Your task to perform on an android device: Open ESPN.com Image 0: 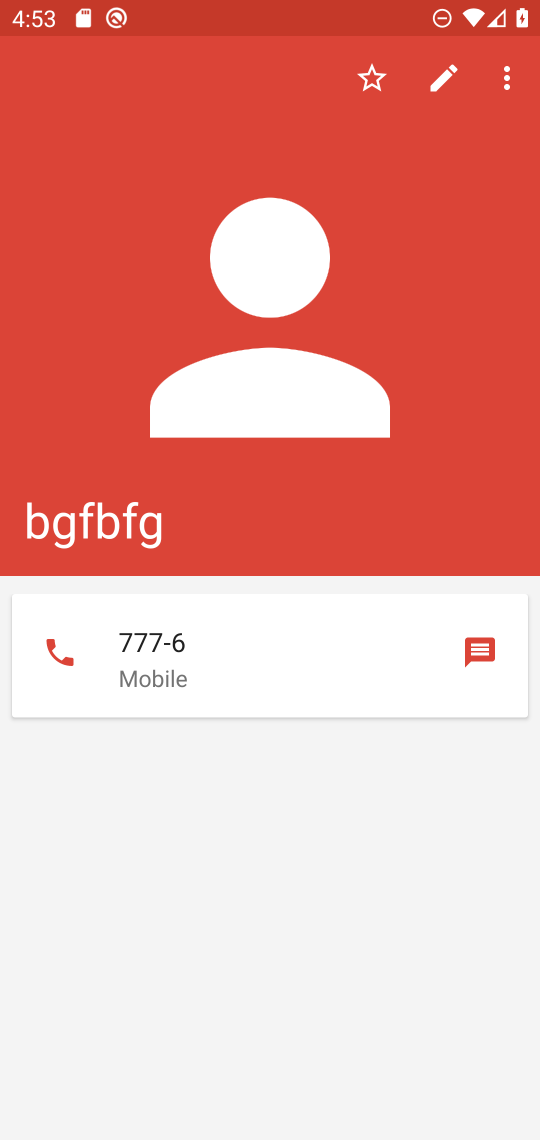
Step 0: press home button
Your task to perform on an android device: Open ESPN.com Image 1: 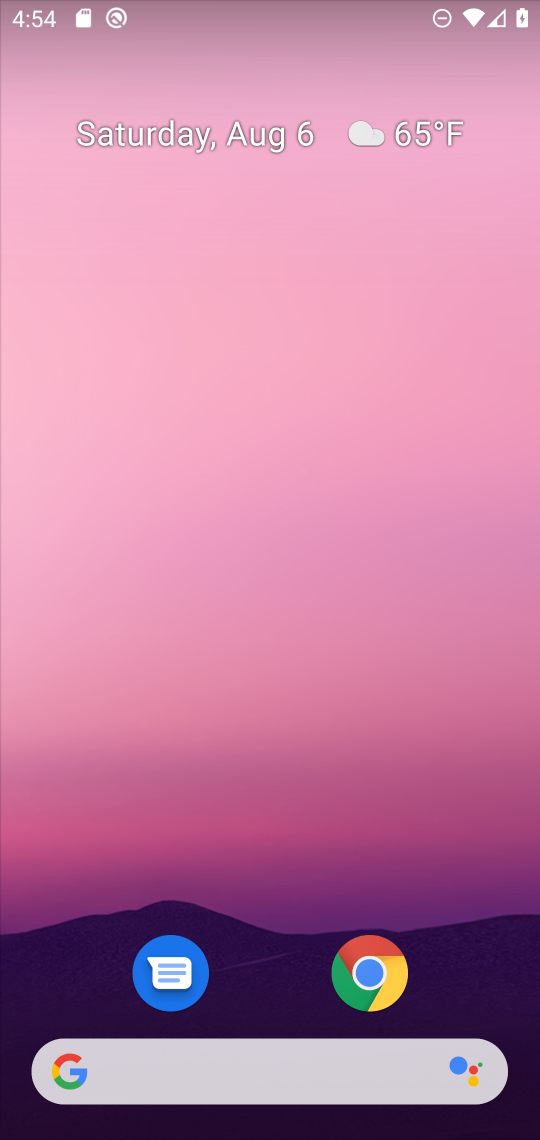
Step 1: drag from (237, 754) to (178, 17)
Your task to perform on an android device: Open ESPN.com Image 2: 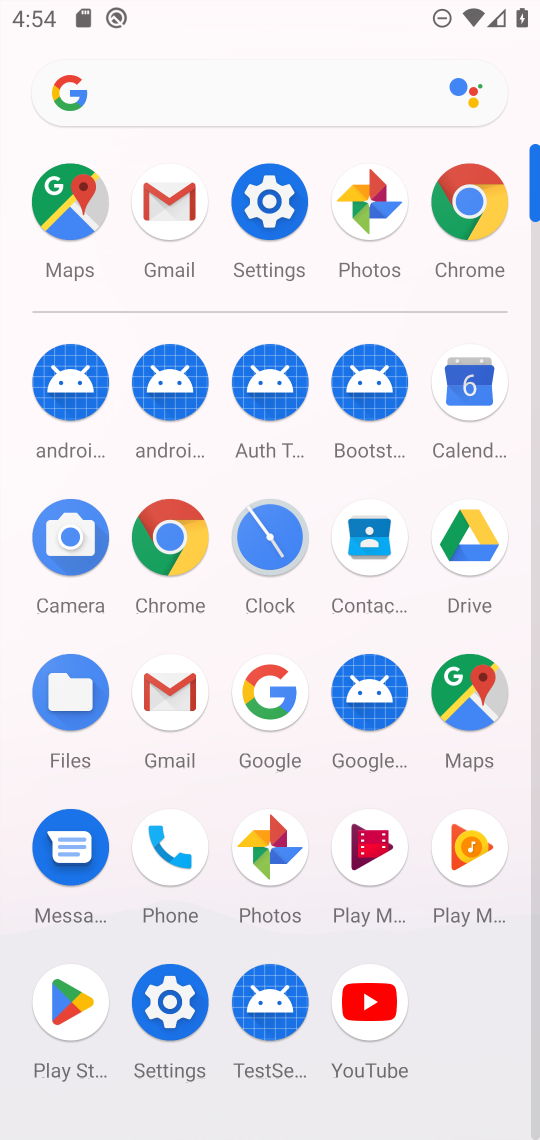
Step 2: click (163, 543)
Your task to perform on an android device: Open ESPN.com Image 3: 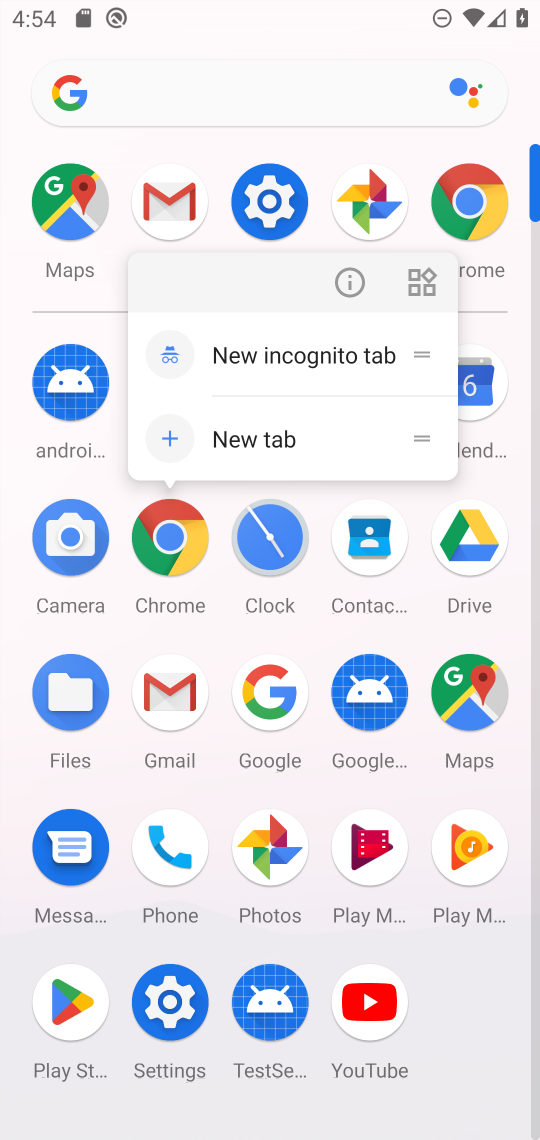
Step 3: click (178, 541)
Your task to perform on an android device: Open ESPN.com Image 4: 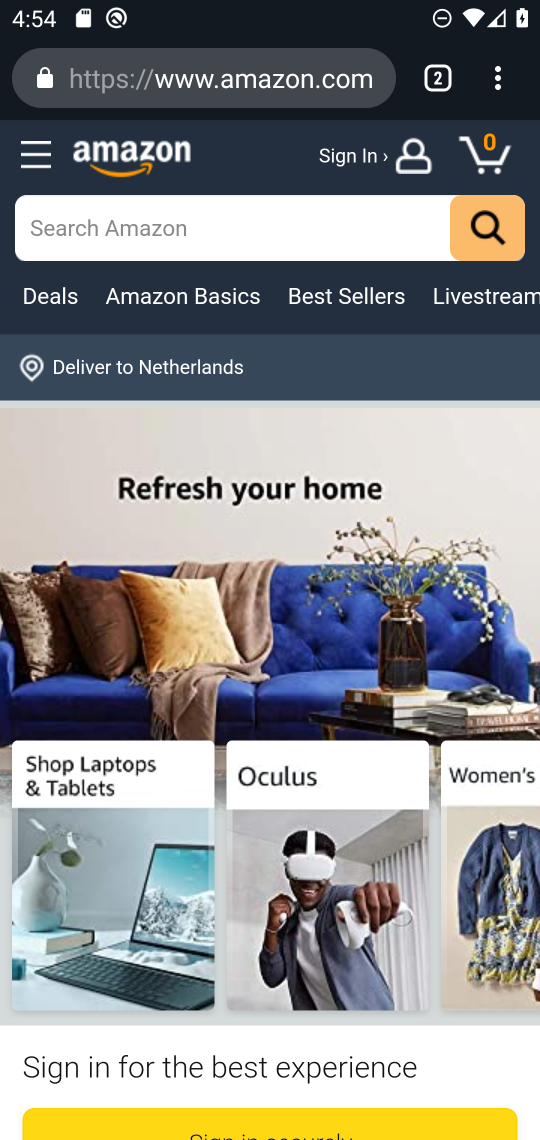
Step 4: click (289, 71)
Your task to perform on an android device: Open ESPN.com Image 5: 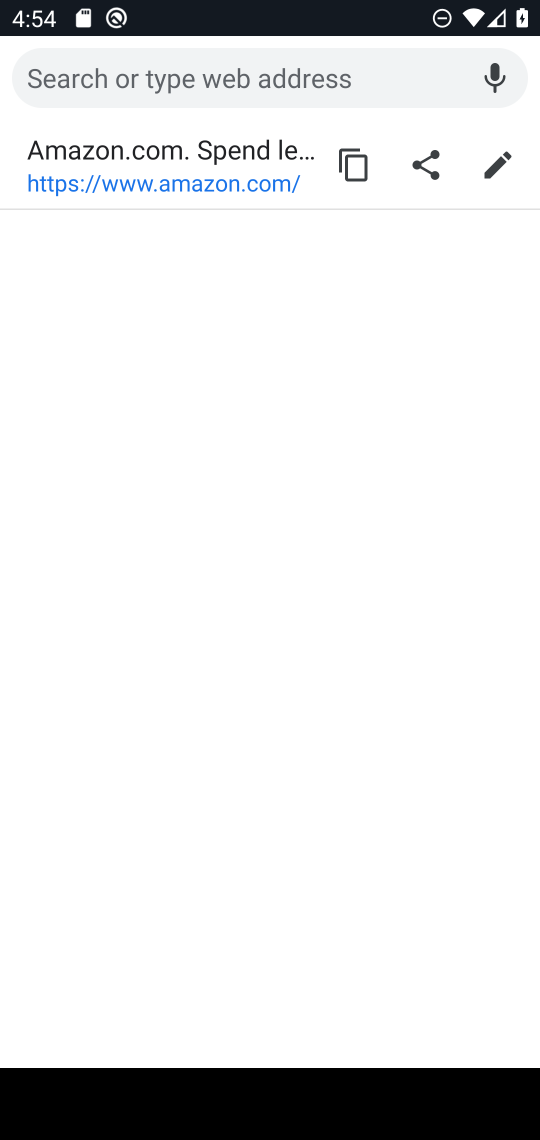
Step 5: type "espn.com"
Your task to perform on an android device: Open ESPN.com Image 6: 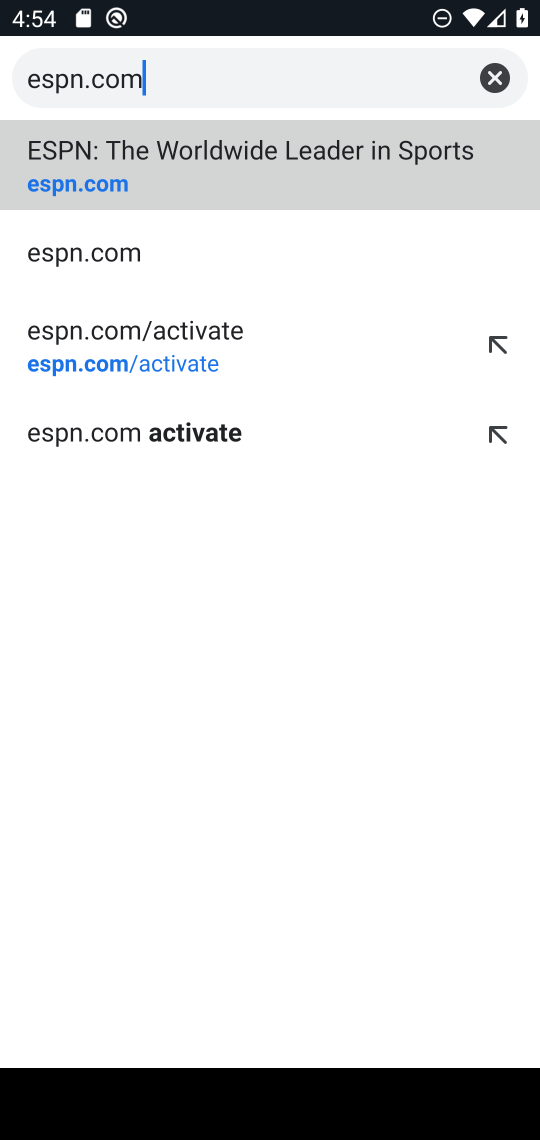
Step 6: click (95, 180)
Your task to perform on an android device: Open ESPN.com Image 7: 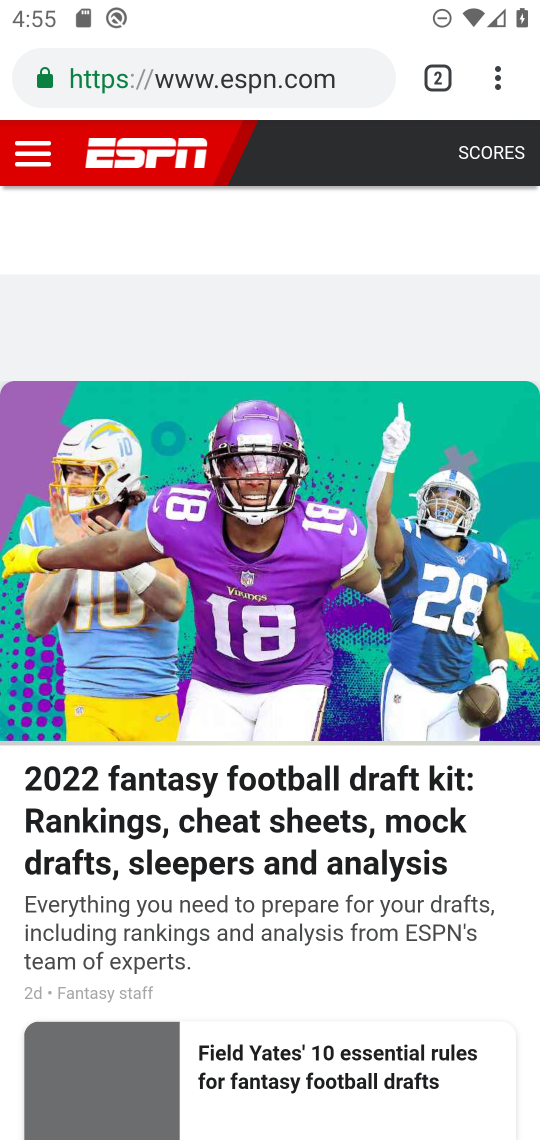
Step 7: task complete